Your task to perform on an android device: open chrome and create a bookmark for the current page Image 0: 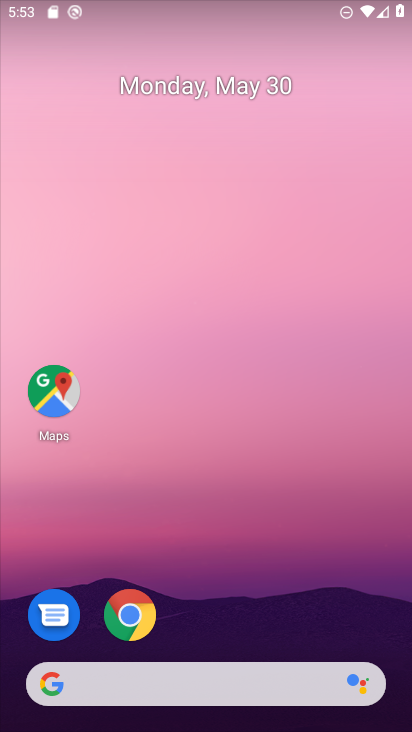
Step 0: click (136, 610)
Your task to perform on an android device: open chrome and create a bookmark for the current page Image 1: 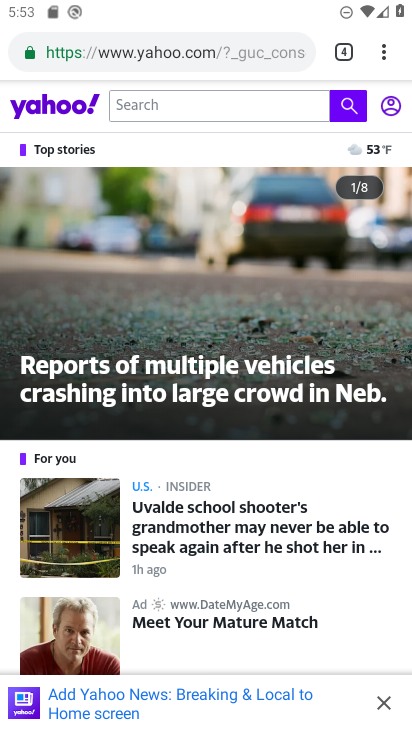
Step 1: click (388, 56)
Your task to perform on an android device: open chrome and create a bookmark for the current page Image 2: 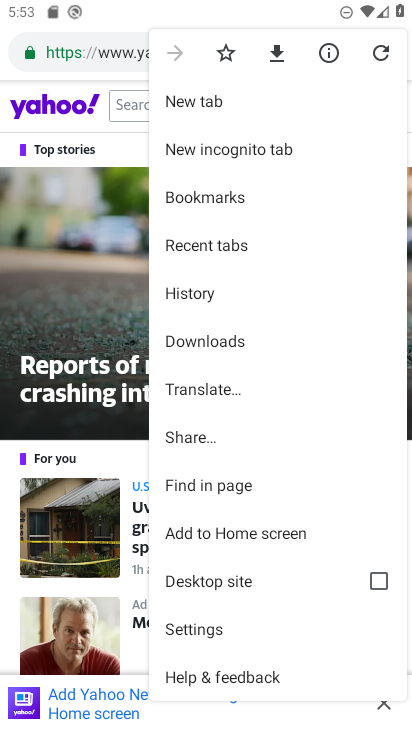
Step 2: click (226, 58)
Your task to perform on an android device: open chrome and create a bookmark for the current page Image 3: 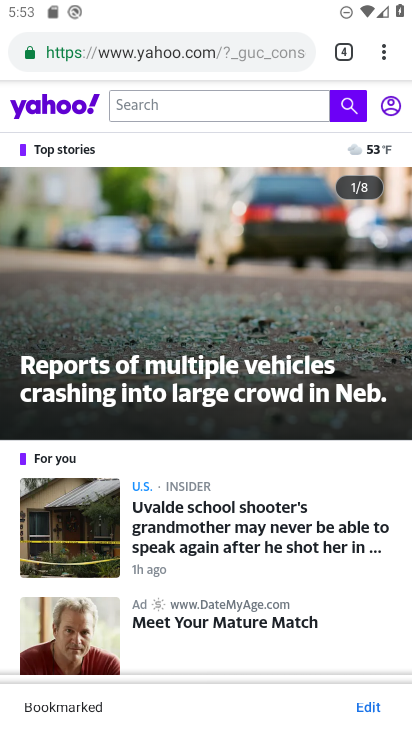
Step 3: task complete